Your task to perform on an android device: Find coffee shops on Maps Image 0: 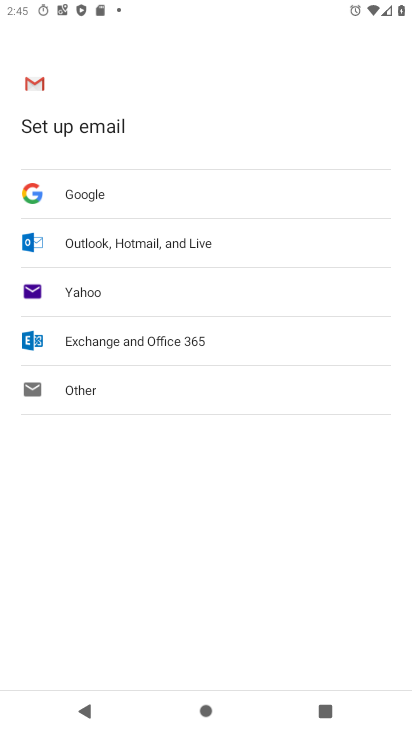
Step 0: press home button
Your task to perform on an android device: Find coffee shops on Maps Image 1: 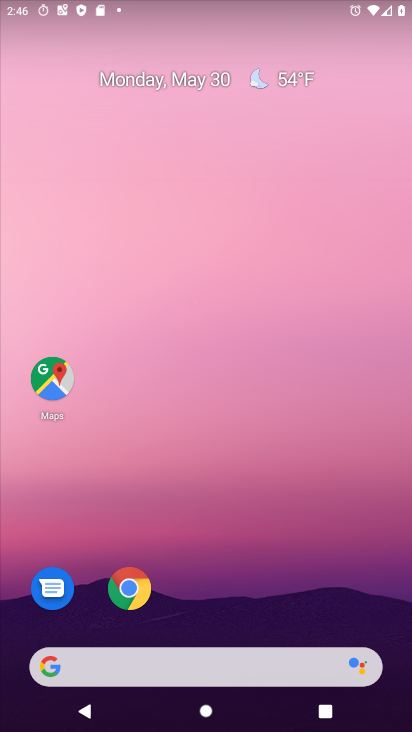
Step 1: click (51, 383)
Your task to perform on an android device: Find coffee shops on Maps Image 2: 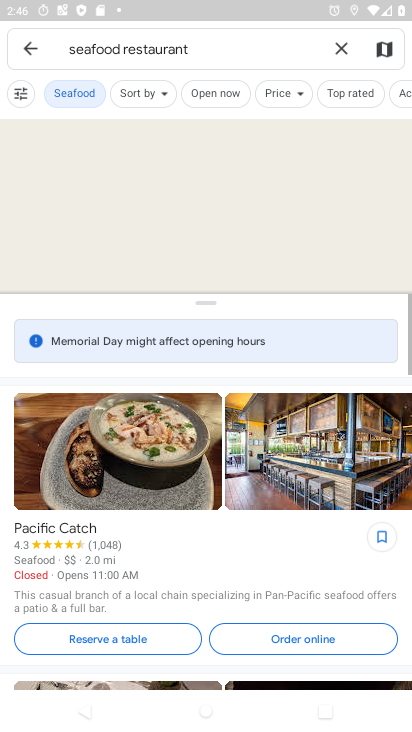
Step 2: click (233, 51)
Your task to perform on an android device: Find coffee shops on Maps Image 3: 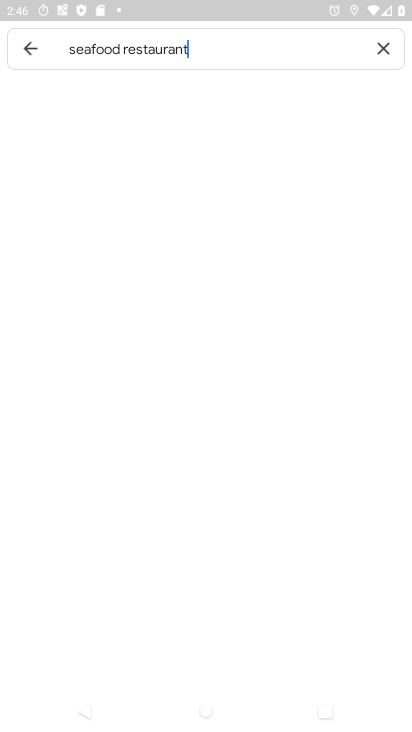
Step 3: click (378, 49)
Your task to perform on an android device: Find coffee shops on Maps Image 4: 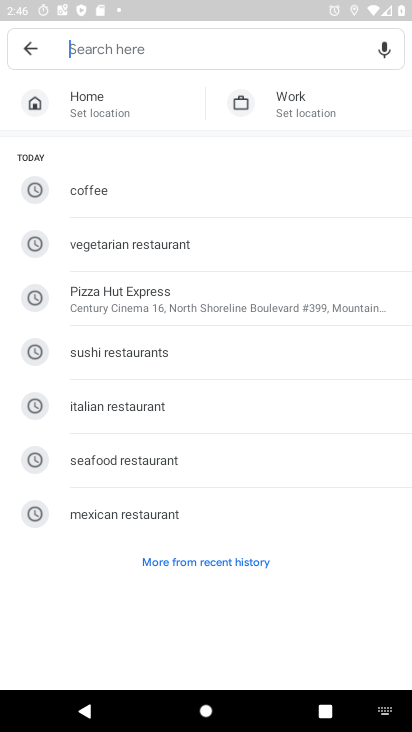
Step 4: click (117, 195)
Your task to perform on an android device: Find coffee shops on Maps Image 5: 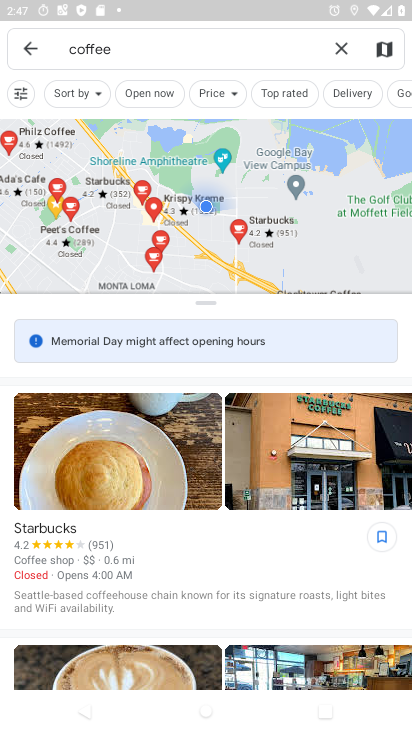
Step 5: task complete